Your task to perform on an android device: toggle wifi Image 0: 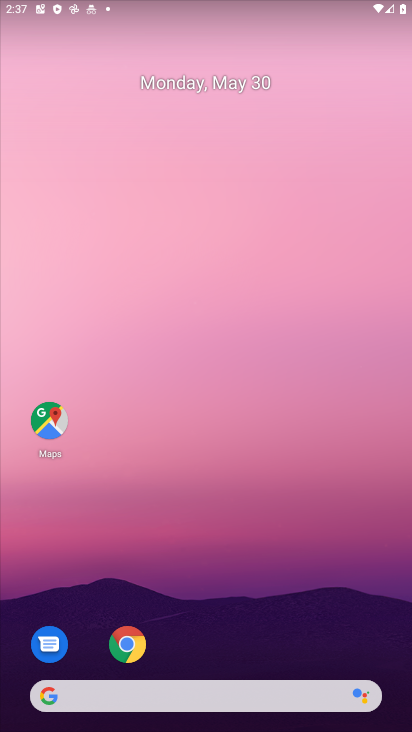
Step 0: task complete